Your task to perform on an android device: Open Yahoo.com Image 0: 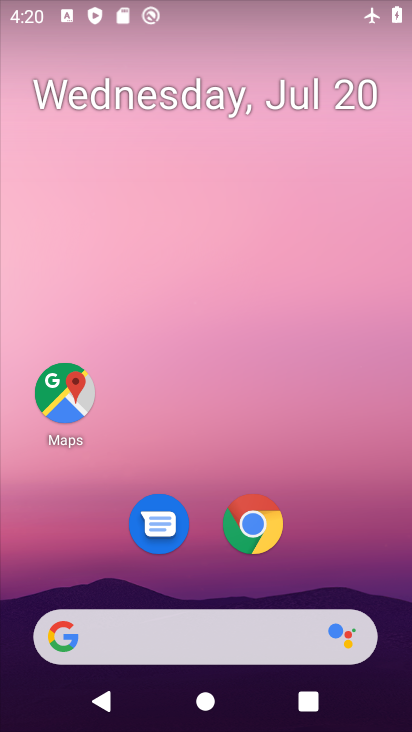
Step 0: drag from (317, 539) to (337, 64)
Your task to perform on an android device: Open Yahoo.com Image 1: 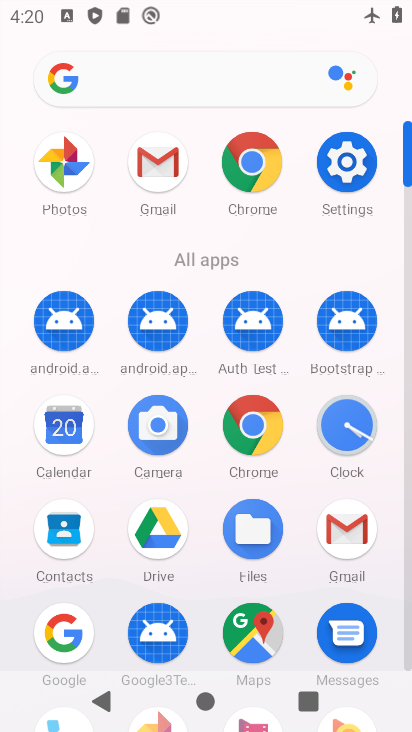
Step 1: press home button
Your task to perform on an android device: Open Yahoo.com Image 2: 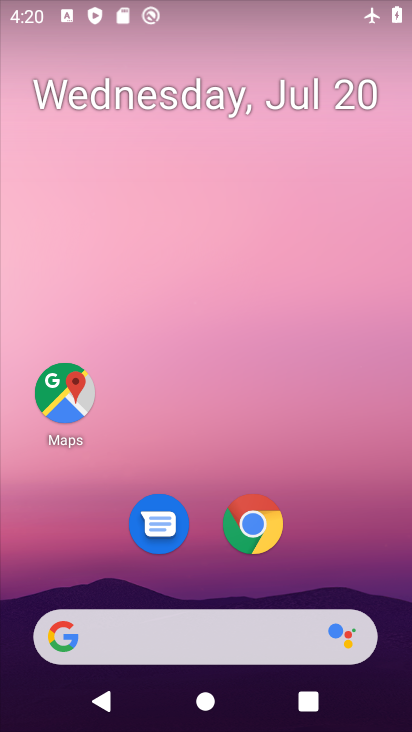
Step 2: click (200, 643)
Your task to perform on an android device: Open Yahoo.com Image 3: 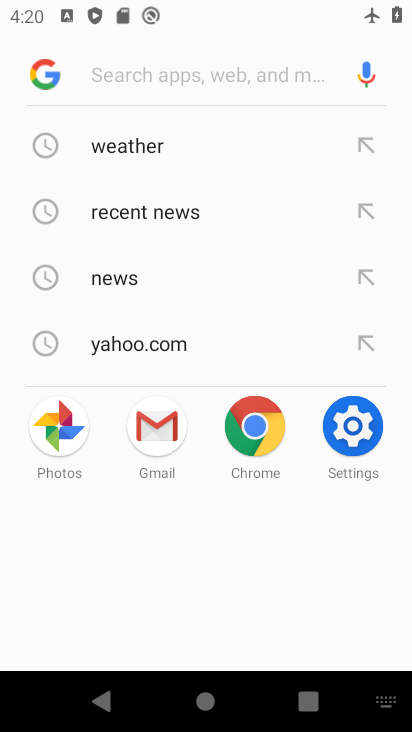
Step 3: click (171, 341)
Your task to perform on an android device: Open Yahoo.com Image 4: 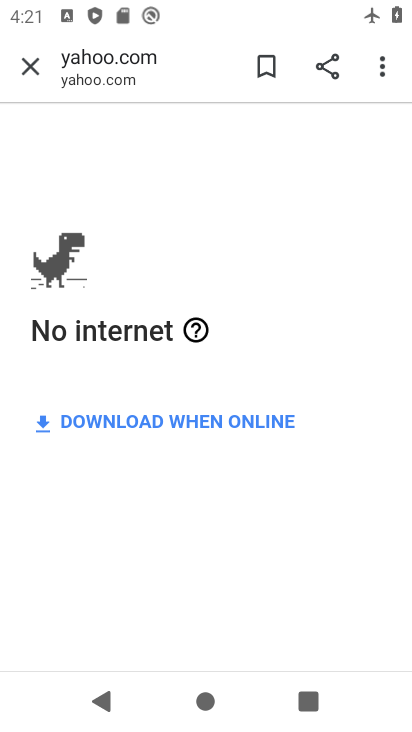
Step 4: press home button
Your task to perform on an android device: Open Yahoo.com Image 5: 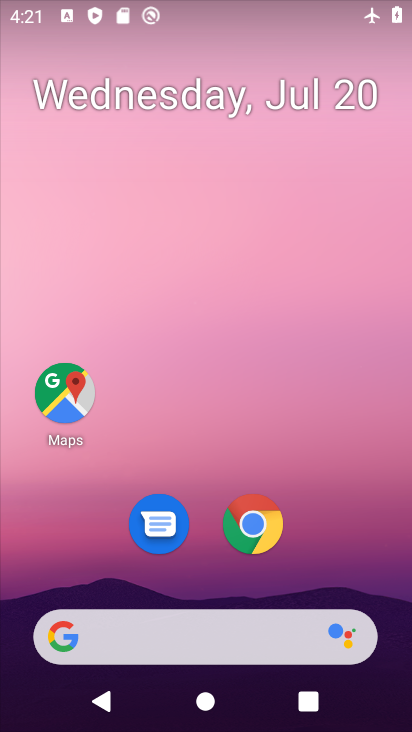
Step 5: drag from (288, 478) to (288, 33)
Your task to perform on an android device: Open Yahoo.com Image 6: 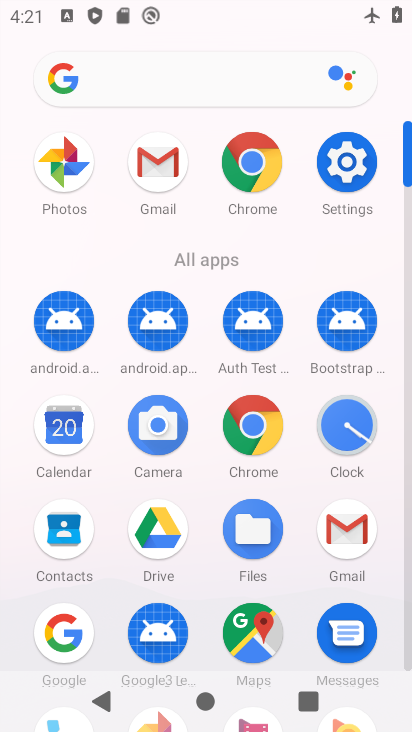
Step 6: click (357, 169)
Your task to perform on an android device: Open Yahoo.com Image 7: 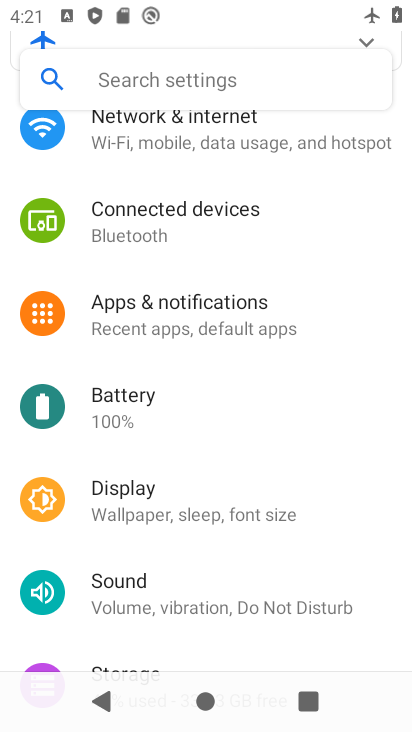
Step 7: click (253, 130)
Your task to perform on an android device: Open Yahoo.com Image 8: 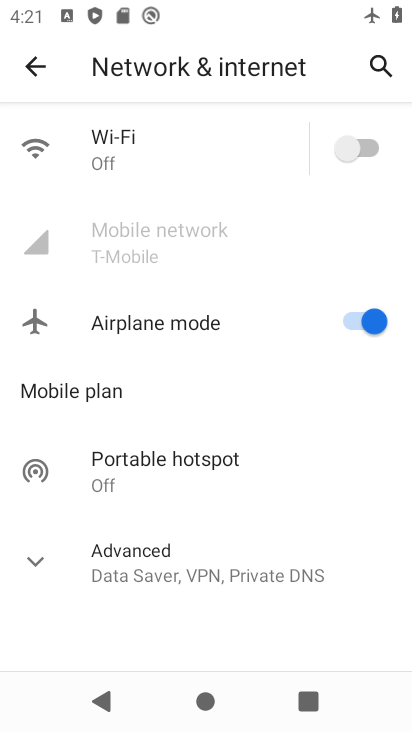
Step 8: click (366, 311)
Your task to perform on an android device: Open Yahoo.com Image 9: 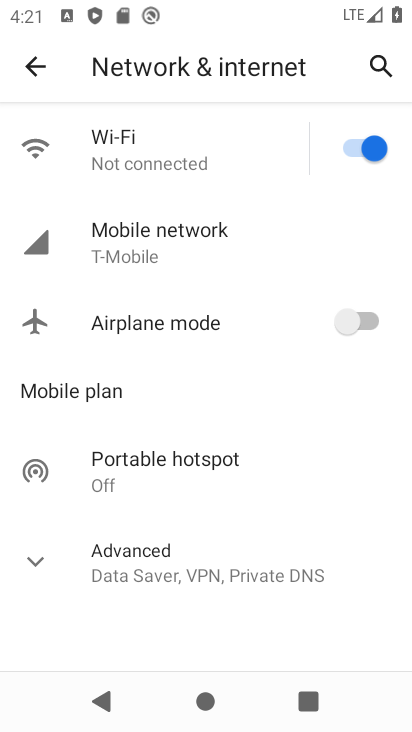
Step 9: task complete